Your task to perform on an android device: Check the news Image 0: 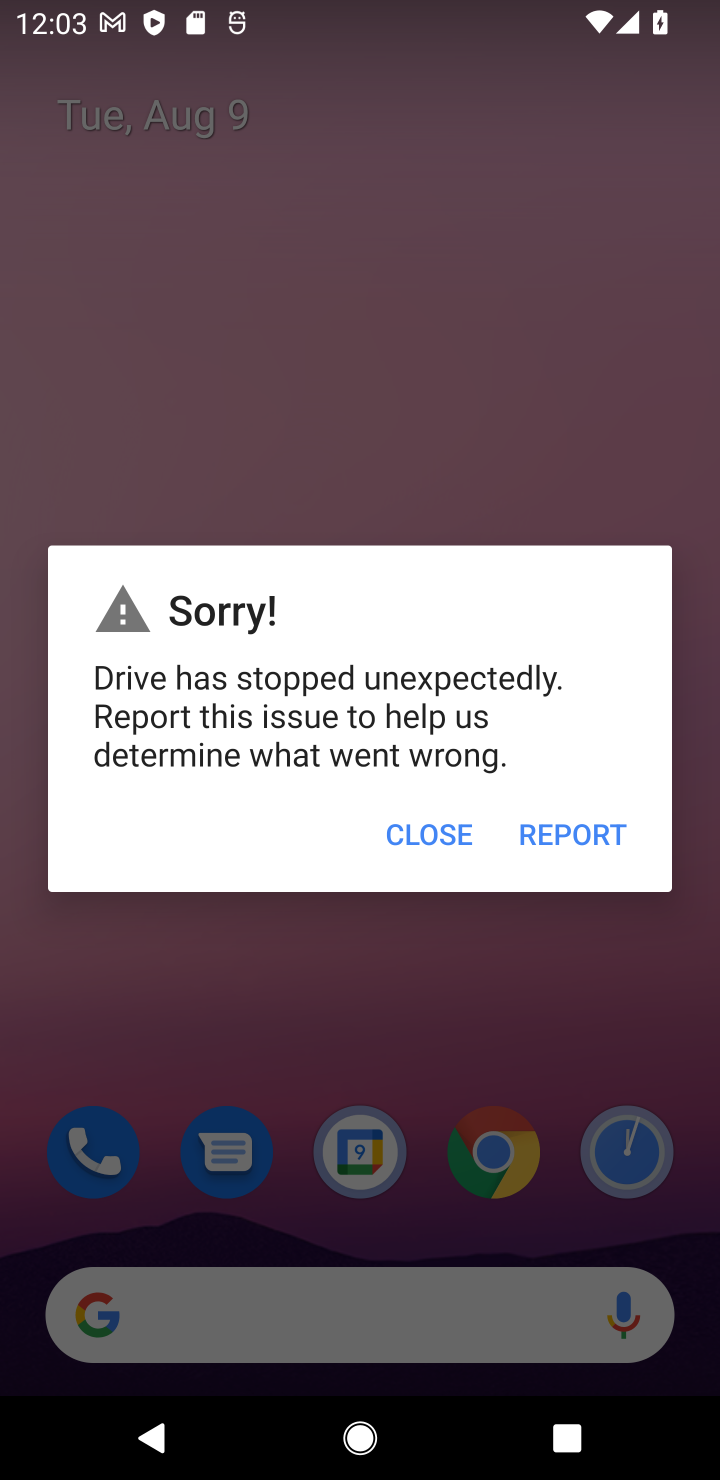
Step 0: click (539, 426)
Your task to perform on an android device: Check the news Image 1: 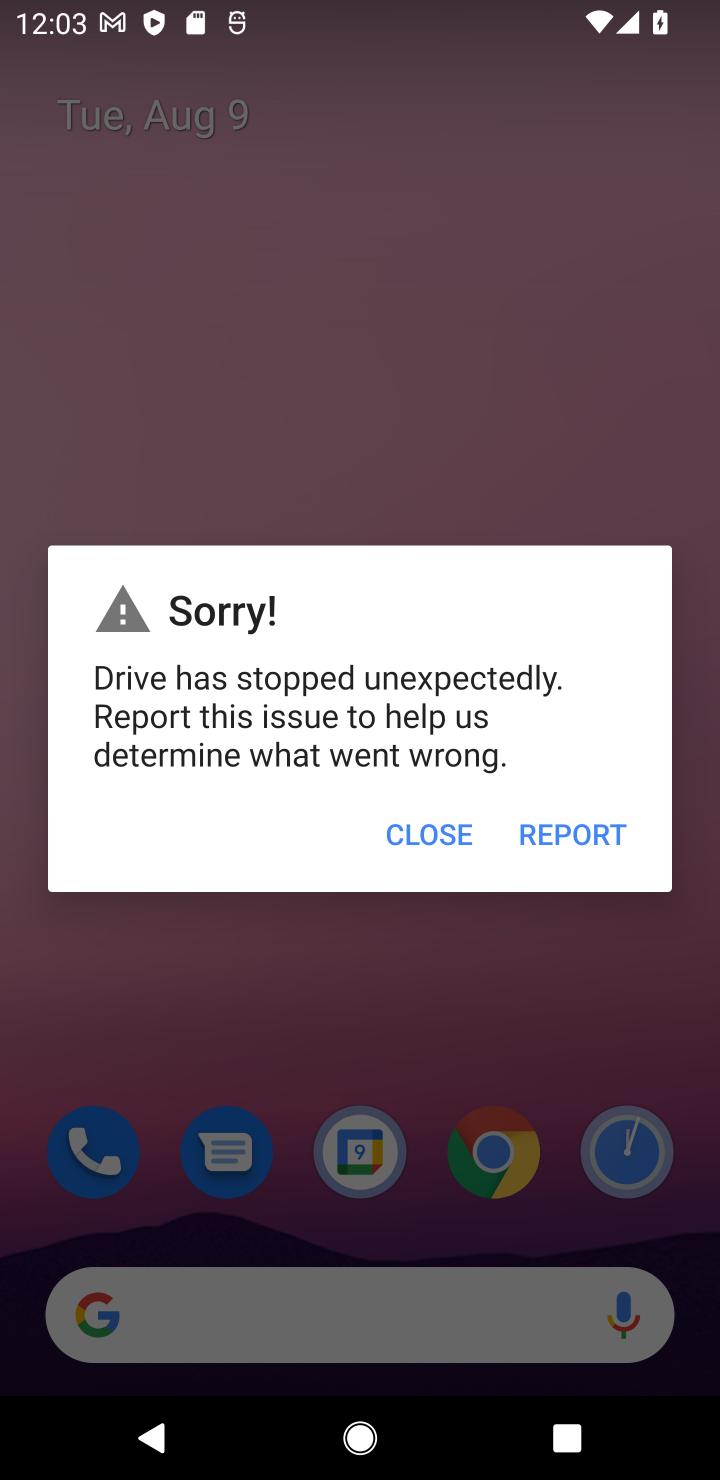
Step 1: click (539, 426)
Your task to perform on an android device: Check the news Image 2: 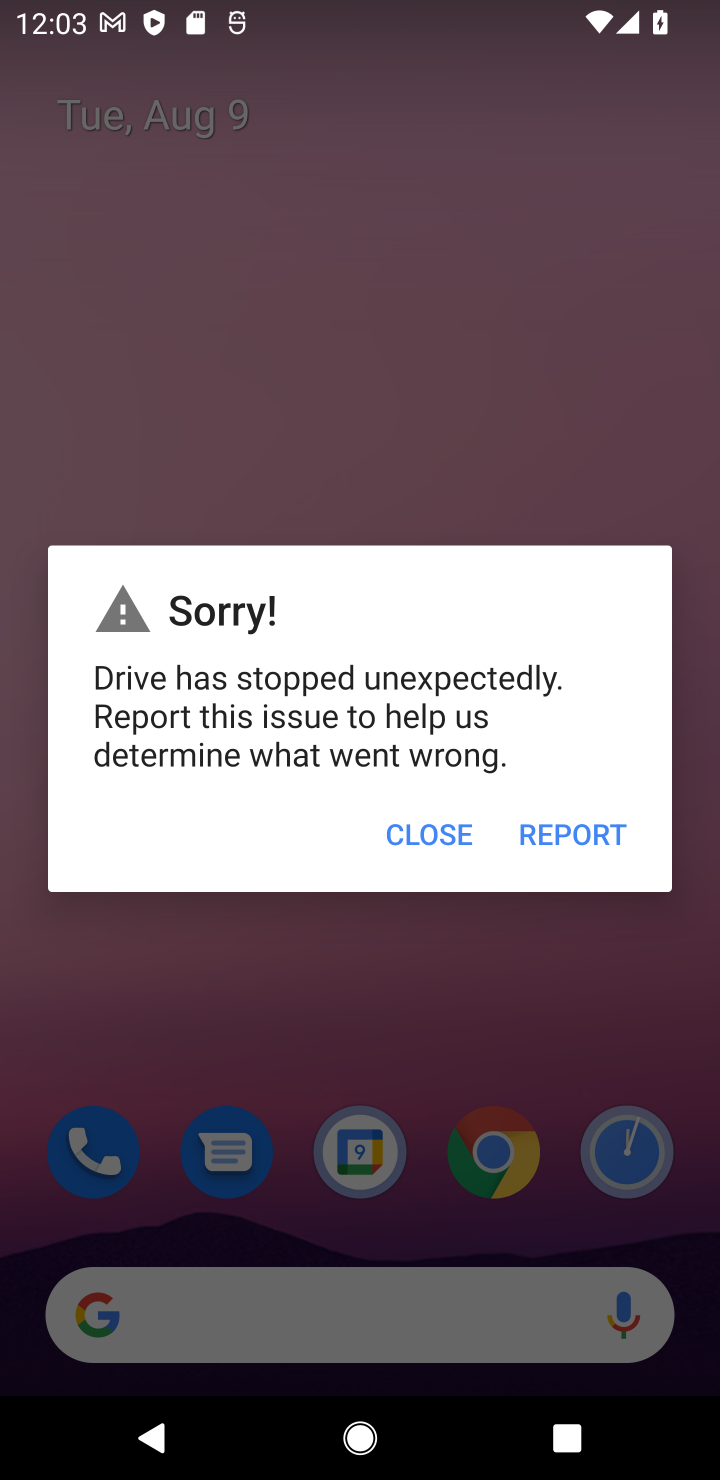
Step 2: task complete